Your task to perform on an android device: check google app version Image 0: 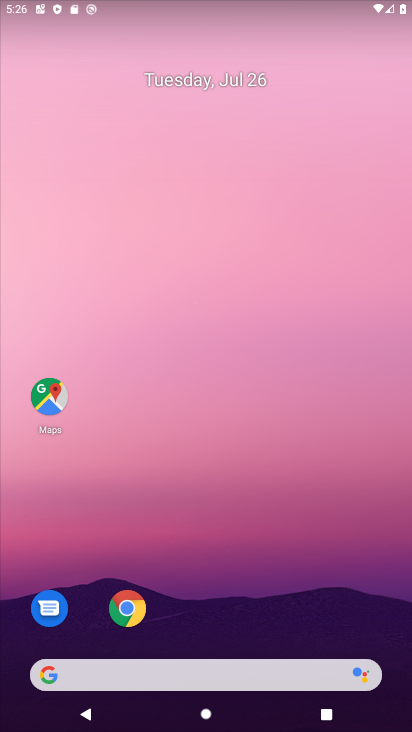
Step 0: drag from (206, 631) to (126, 10)
Your task to perform on an android device: check google app version Image 1: 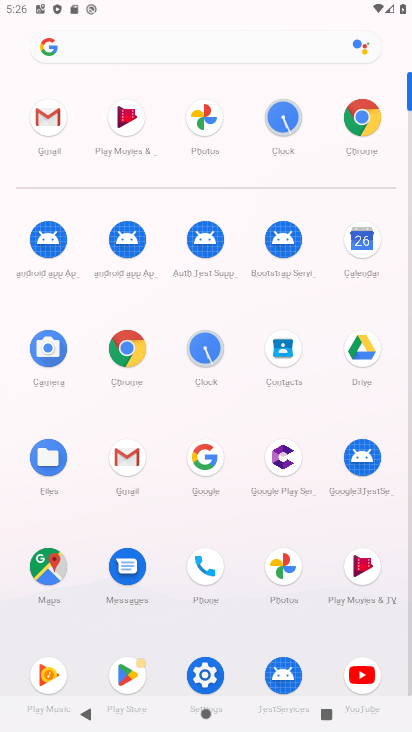
Step 1: click (204, 465)
Your task to perform on an android device: check google app version Image 2: 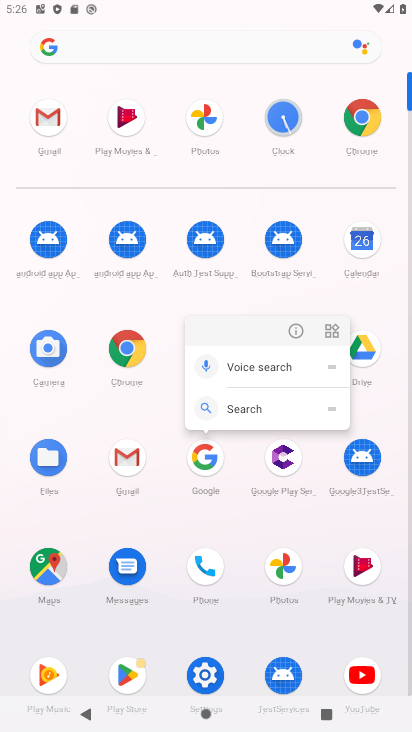
Step 2: click (300, 329)
Your task to perform on an android device: check google app version Image 3: 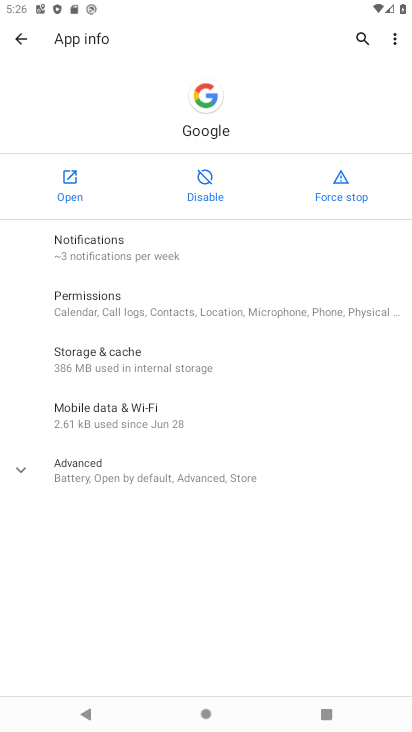
Step 3: click (84, 465)
Your task to perform on an android device: check google app version Image 4: 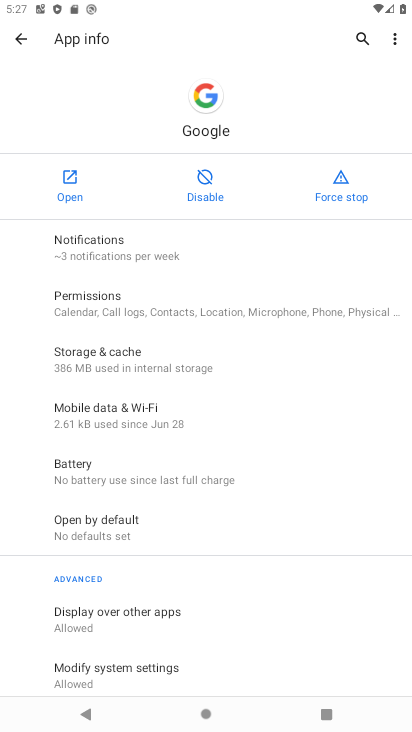
Step 4: task complete